Your task to perform on an android device: turn pop-ups on in chrome Image 0: 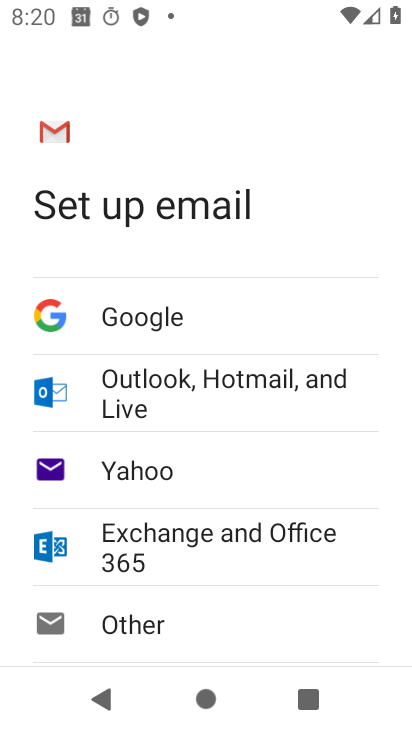
Step 0: press home button
Your task to perform on an android device: turn pop-ups on in chrome Image 1: 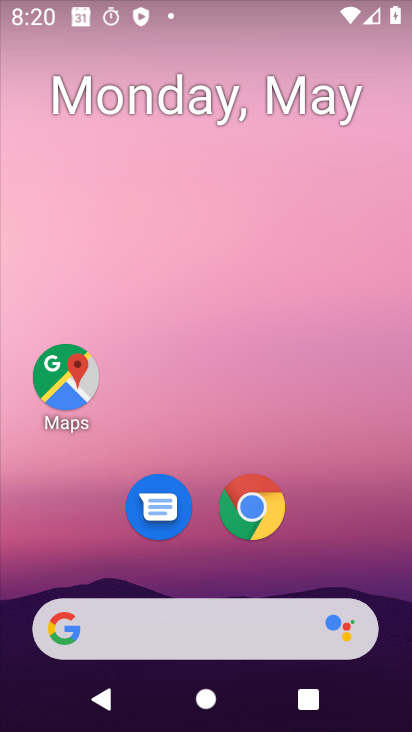
Step 1: drag from (199, 554) to (338, 0)
Your task to perform on an android device: turn pop-ups on in chrome Image 2: 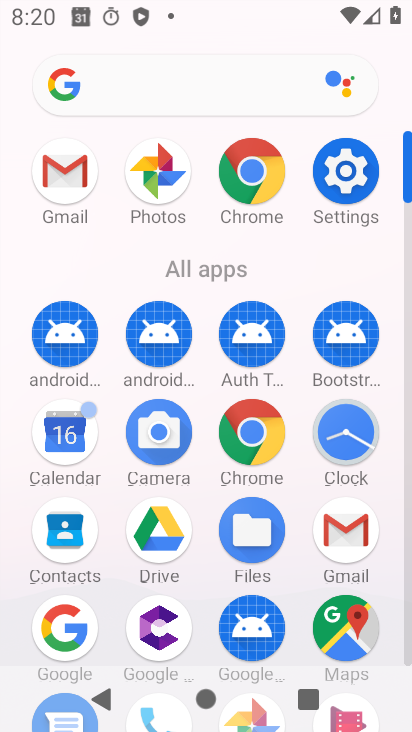
Step 2: click (265, 193)
Your task to perform on an android device: turn pop-ups on in chrome Image 3: 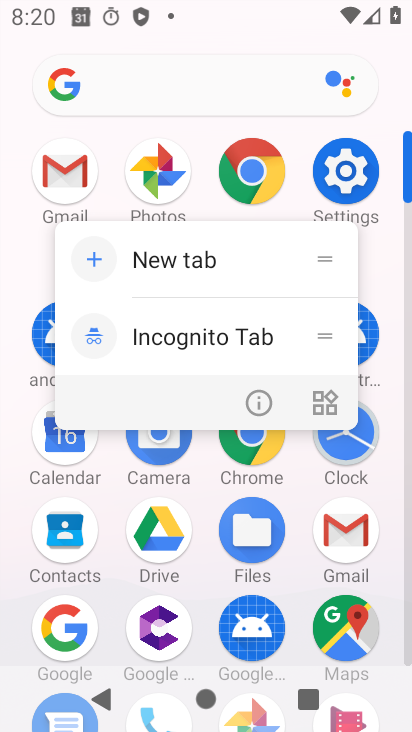
Step 3: click (258, 189)
Your task to perform on an android device: turn pop-ups on in chrome Image 4: 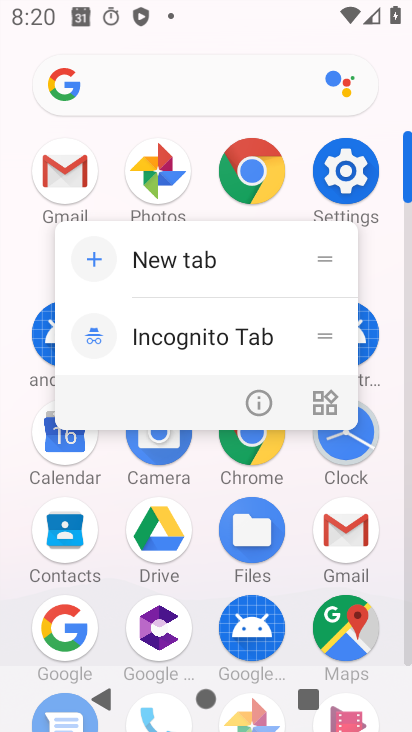
Step 4: click (258, 188)
Your task to perform on an android device: turn pop-ups on in chrome Image 5: 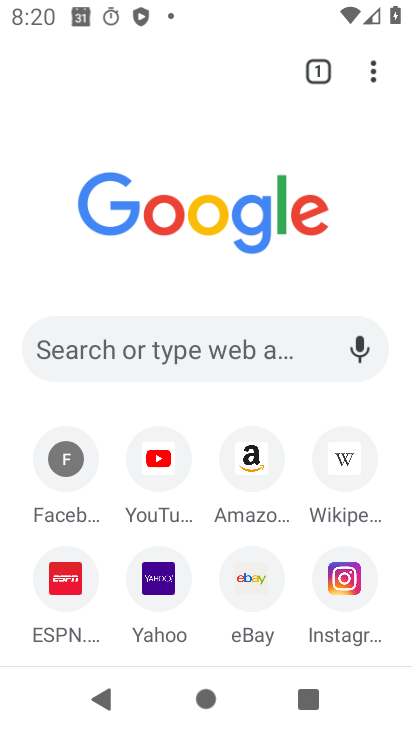
Step 5: click (380, 71)
Your task to perform on an android device: turn pop-ups on in chrome Image 6: 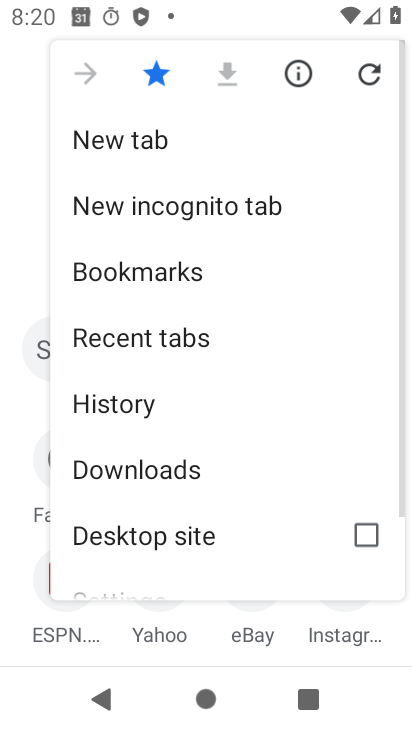
Step 6: drag from (152, 480) to (219, 170)
Your task to perform on an android device: turn pop-ups on in chrome Image 7: 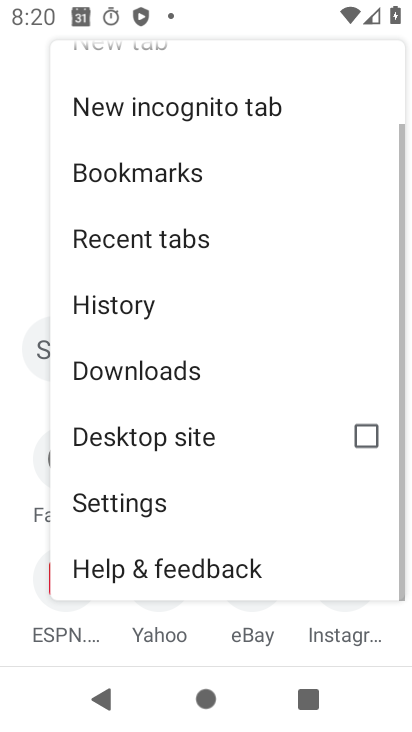
Step 7: click (132, 499)
Your task to perform on an android device: turn pop-ups on in chrome Image 8: 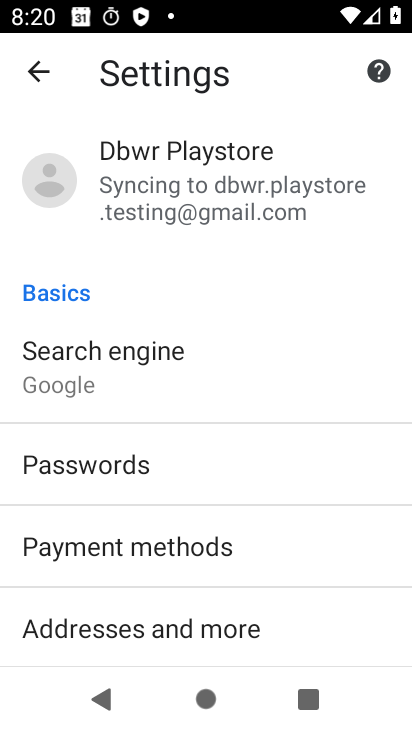
Step 8: drag from (144, 567) to (238, 287)
Your task to perform on an android device: turn pop-ups on in chrome Image 9: 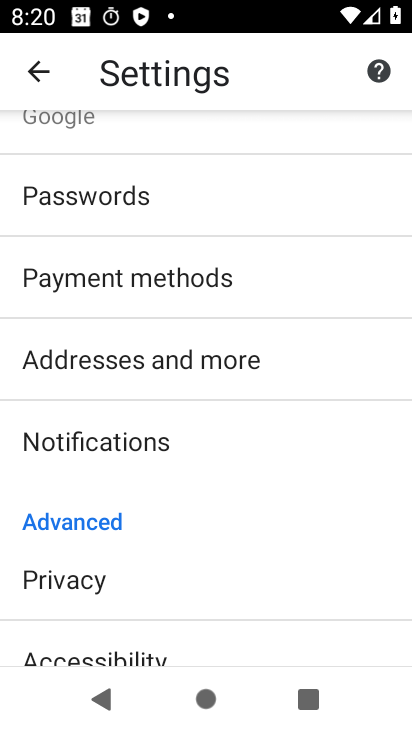
Step 9: drag from (153, 555) to (205, 264)
Your task to perform on an android device: turn pop-ups on in chrome Image 10: 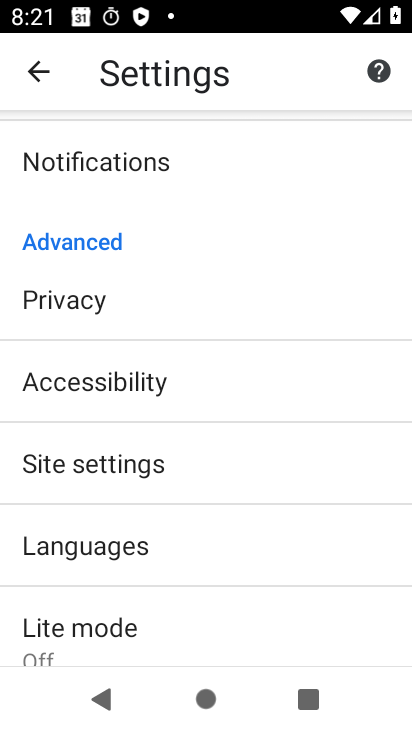
Step 10: click (126, 460)
Your task to perform on an android device: turn pop-ups on in chrome Image 11: 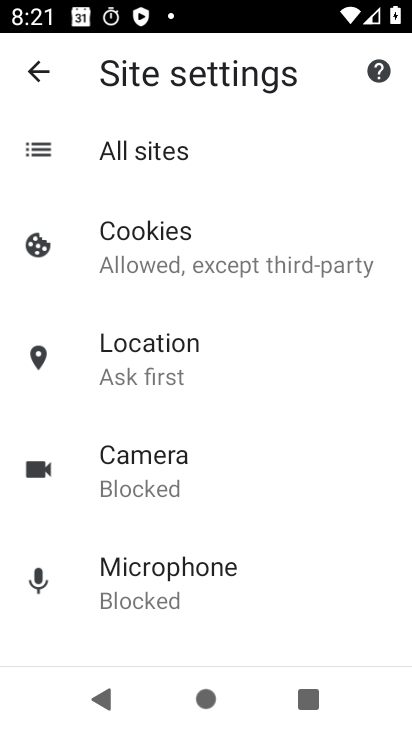
Step 11: drag from (164, 466) to (220, 229)
Your task to perform on an android device: turn pop-ups on in chrome Image 12: 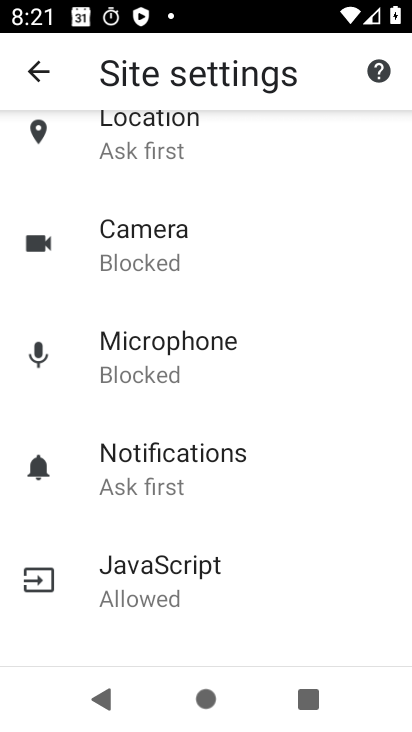
Step 12: drag from (170, 540) to (223, 264)
Your task to perform on an android device: turn pop-ups on in chrome Image 13: 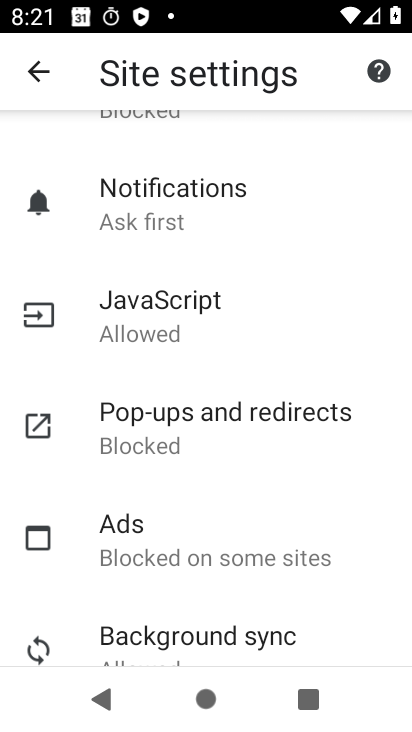
Step 13: click (187, 453)
Your task to perform on an android device: turn pop-ups on in chrome Image 14: 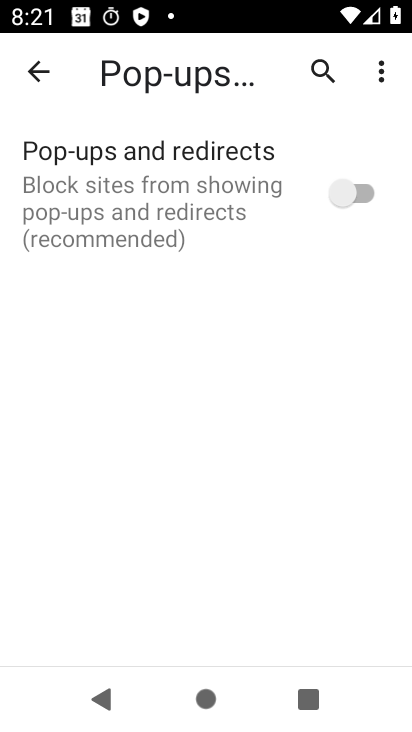
Step 14: click (361, 194)
Your task to perform on an android device: turn pop-ups on in chrome Image 15: 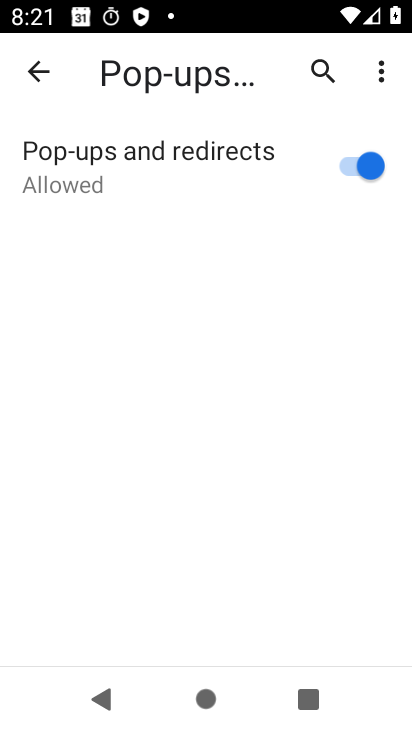
Step 15: task complete